Your task to perform on an android device: open the mobile data screen to see how much data has been used Image 0: 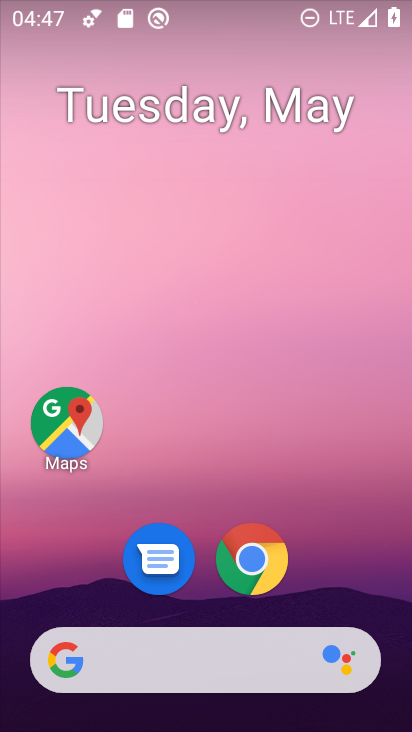
Step 0: drag from (227, 720) to (219, 157)
Your task to perform on an android device: open the mobile data screen to see how much data has been used Image 1: 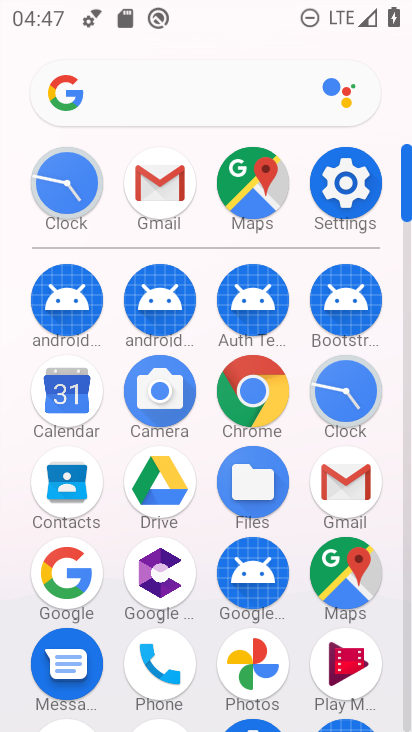
Step 1: click (334, 190)
Your task to perform on an android device: open the mobile data screen to see how much data has been used Image 2: 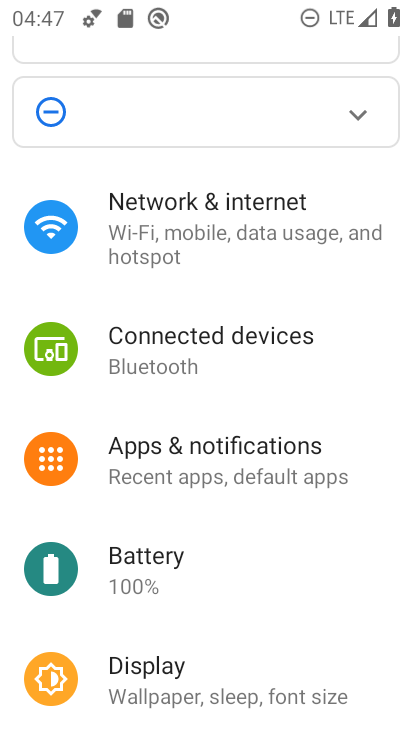
Step 2: click (147, 221)
Your task to perform on an android device: open the mobile data screen to see how much data has been used Image 3: 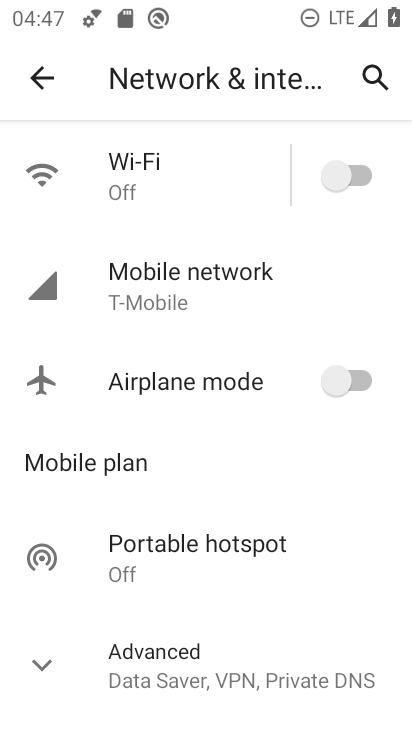
Step 3: click (167, 281)
Your task to perform on an android device: open the mobile data screen to see how much data has been used Image 4: 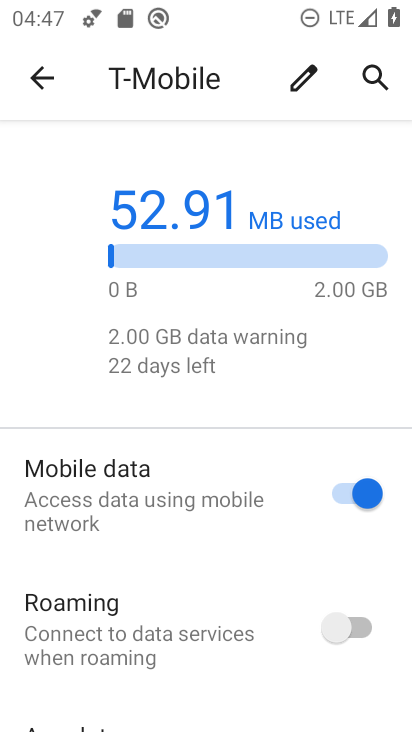
Step 4: drag from (171, 695) to (154, 456)
Your task to perform on an android device: open the mobile data screen to see how much data has been used Image 5: 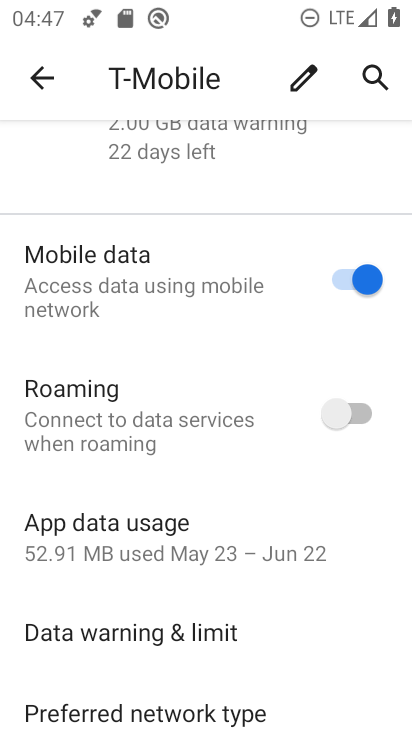
Step 5: click (138, 542)
Your task to perform on an android device: open the mobile data screen to see how much data has been used Image 6: 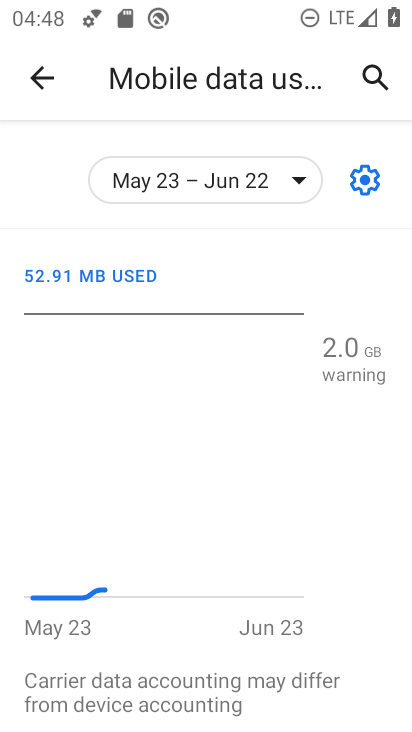
Step 6: task complete